Your task to perform on an android device: toggle javascript in the chrome app Image 0: 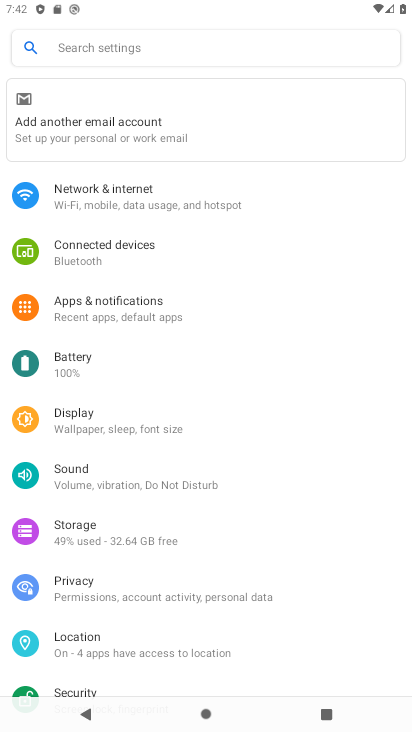
Step 0: press back button
Your task to perform on an android device: toggle javascript in the chrome app Image 1: 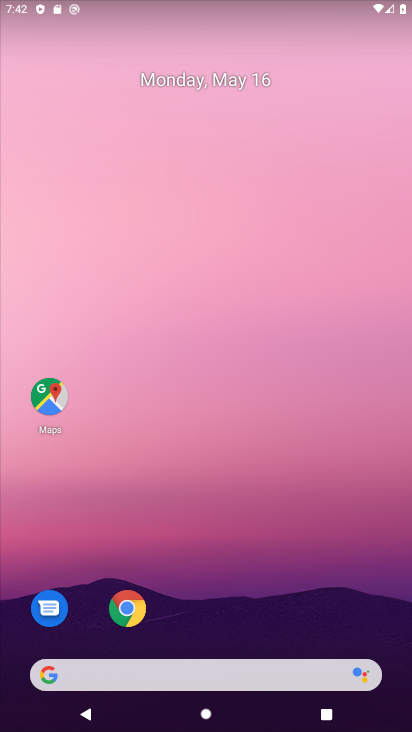
Step 1: click (128, 607)
Your task to perform on an android device: toggle javascript in the chrome app Image 2: 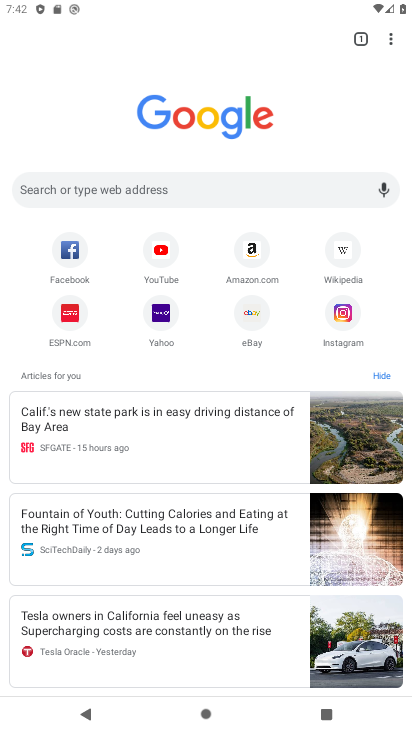
Step 2: click (391, 38)
Your task to perform on an android device: toggle javascript in the chrome app Image 3: 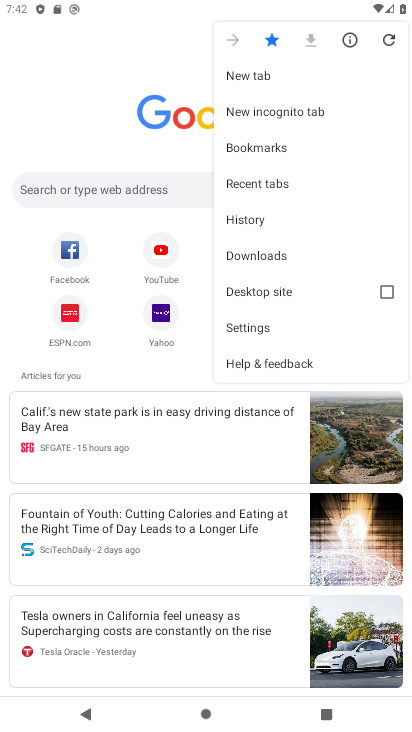
Step 3: click (250, 325)
Your task to perform on an android device: toggle javascript in the chrome app Image 4: 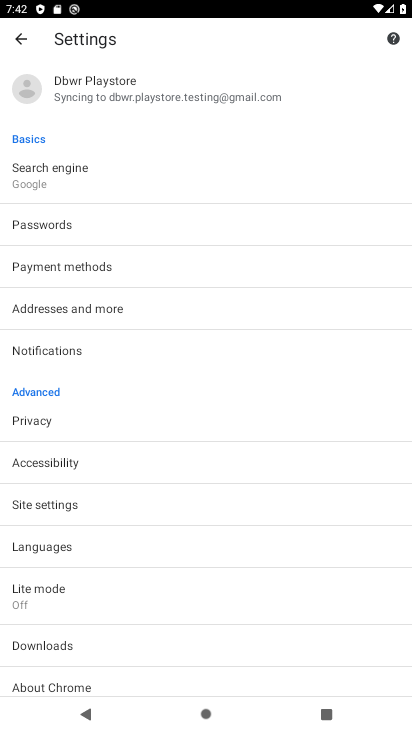
Step 4: click (72, 505)
Your task to perform on an android device: toggle javascript in the chrome app Image 5: 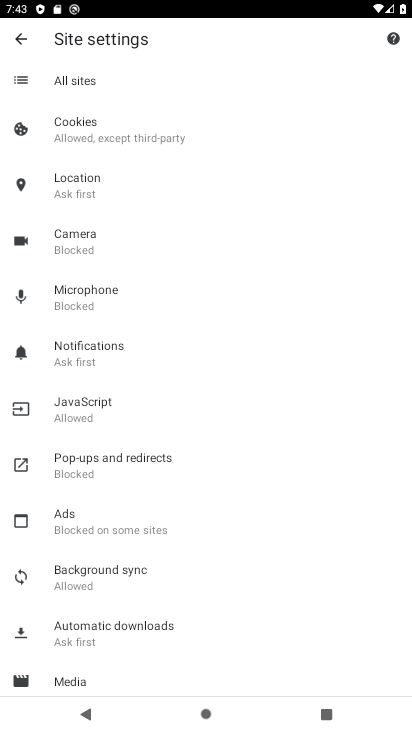
Step 5: click (105, 410)
Your task to perform on an android device: toggle javascript in the chrome app Image 6: 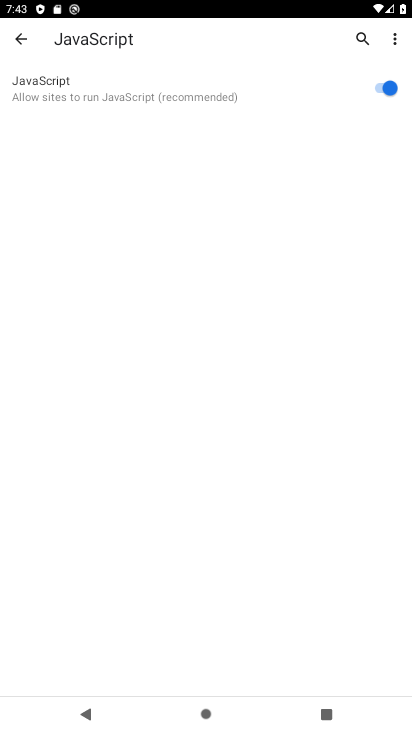
Step 6: click (377, 92)
Your task to perform on an android device: toggle javascript in the chrome app Image 7: 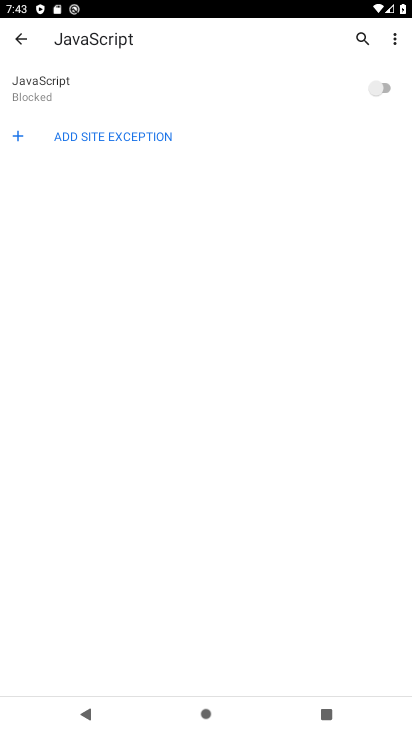
Step 7: task complete